Your task to perform on an android device: see tabs open on other devices in the chrome app Image 0: 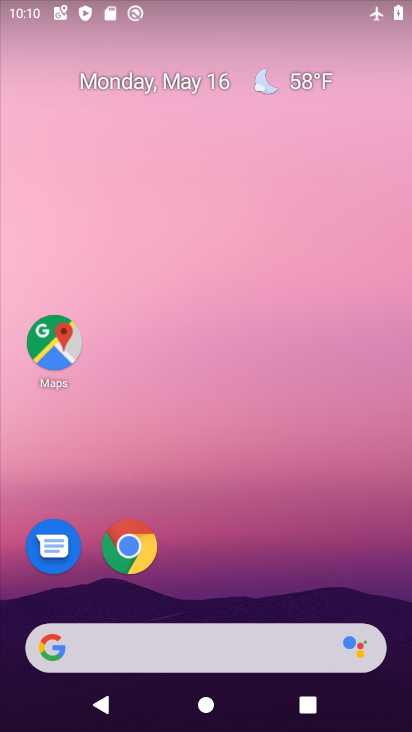
Step 0: click (127, 544)
Your task to perform on an android device: see tabs open on other devices in the chrome app Image 1: 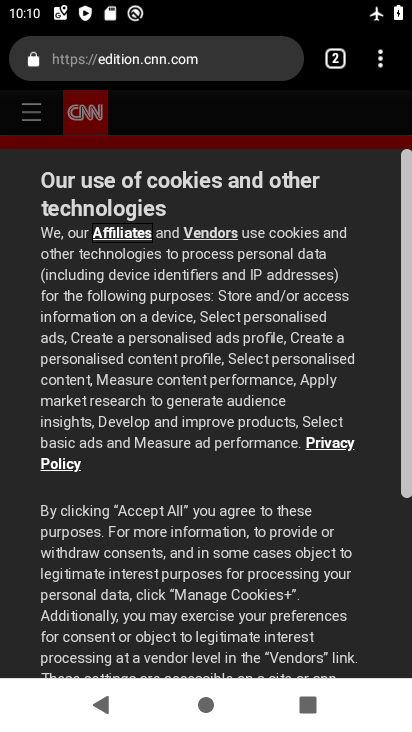
Step 1: click (380, 59)
Your task to perform on an android device: see tabs open on other devices in the chrome app Image 2: 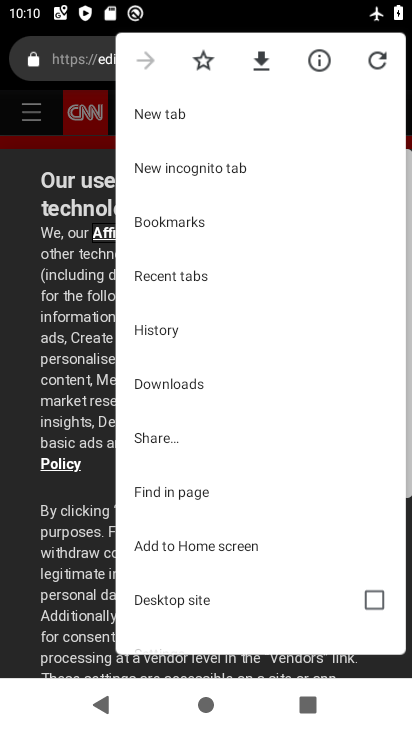
Step 2: click (174, 278)
Your task to perform on an android device: see tabs open on other devices in the chrome app Image 3: 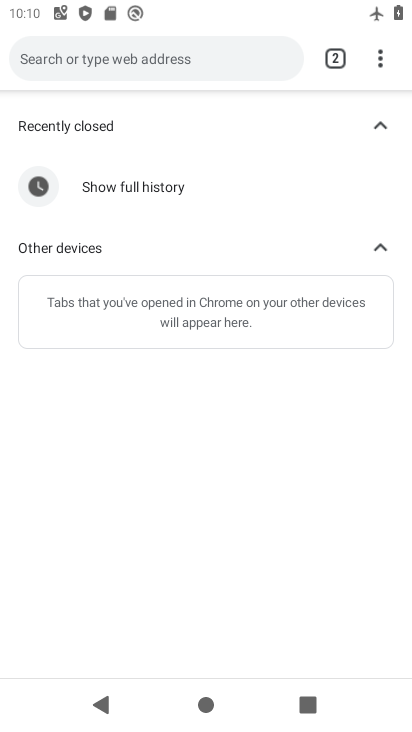
Step 3: task complete